Your task to perform on an android device: Go to Amazon Image 0: 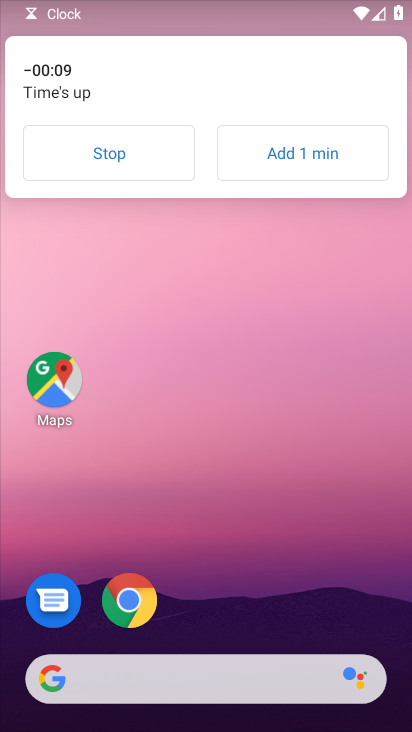
Step 0: click (131, 595)
Your task to perform on an android device: Go to Amazon Image 1: 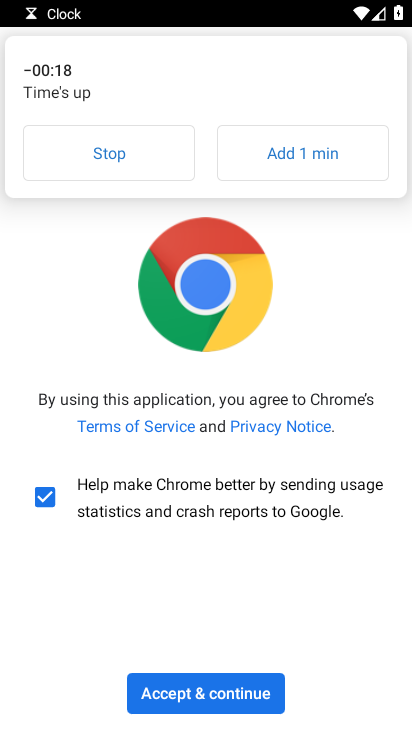
Step 1: click (183, 697)
Your task to perform on an android device: Go to Amazon Image 2: 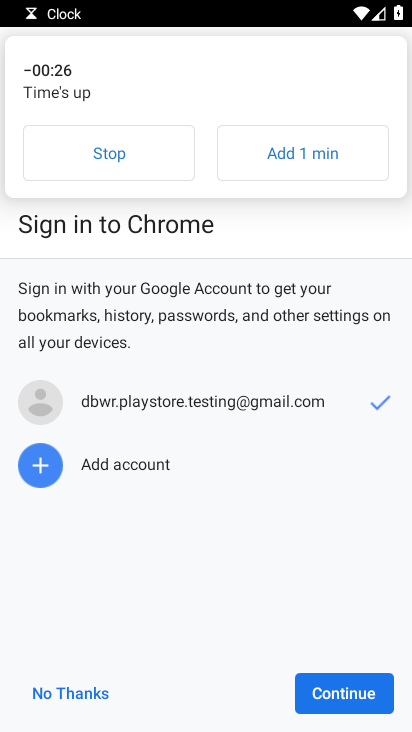
Step 2: click (183, 697)
Your task to perform on an android device: Go to Amazon Image 3: 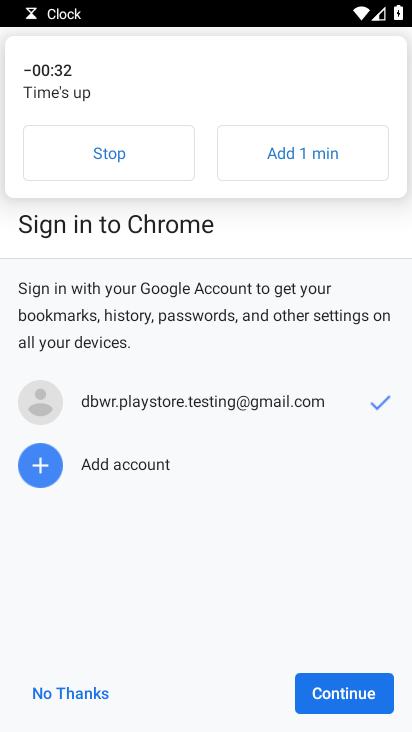
Step 3: click (312, 702)
Your task to perform on an android device: Go to Amazon Image 4: 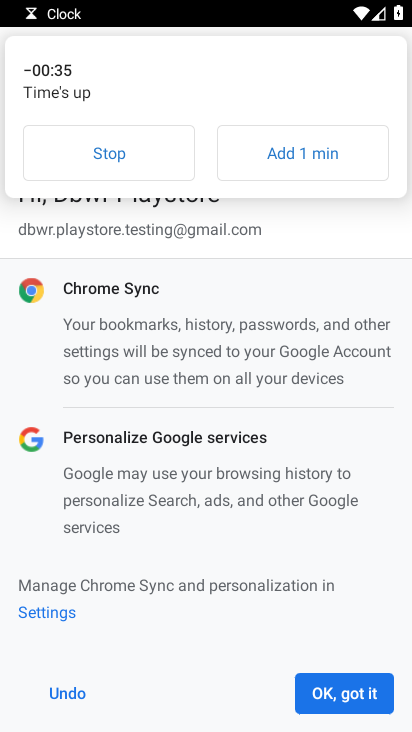
Step 4: click (312, 702)
Your task to perform on an android device: Go to Amazon Image 5: 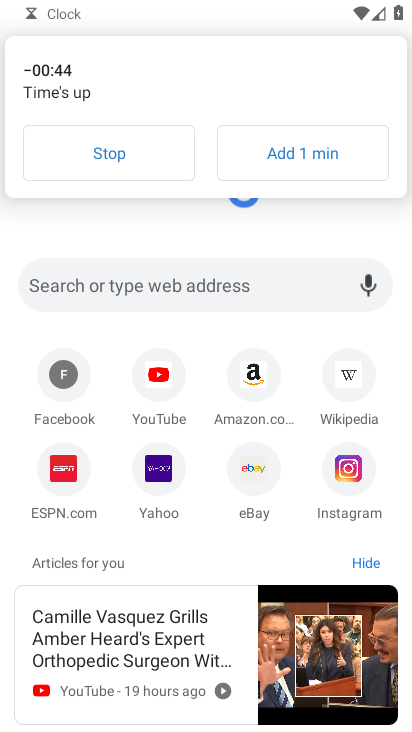
Step 5: click (237, 404)
Your task to perform on an android device: Go to Amazon Image 6: 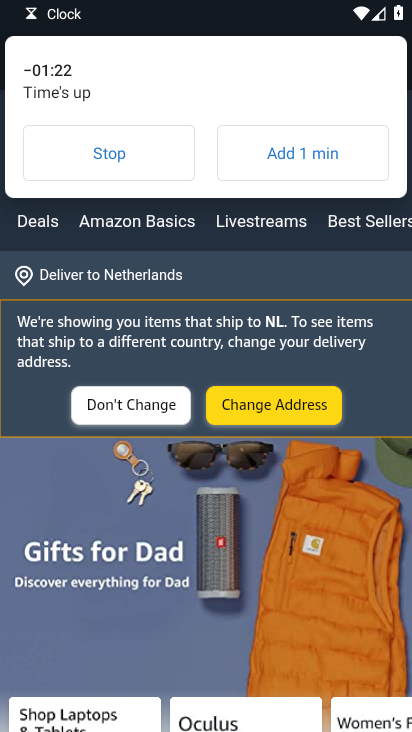
Step 6: task complete